Your task to perform on an android device: delete a single message in the gmail app Image 0: 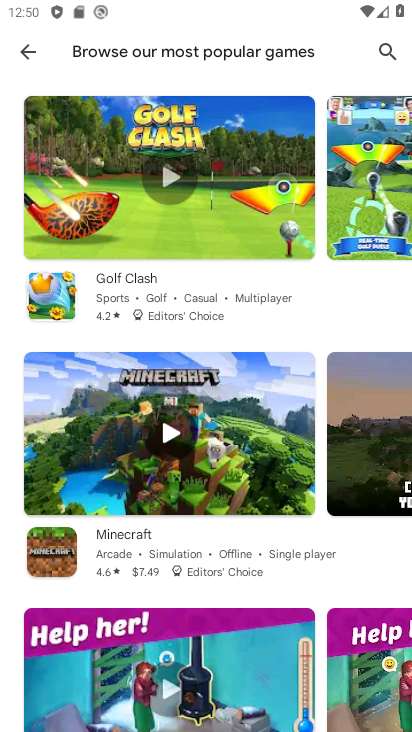
Step 0: press home button
Your task to perform on an android device: delete a single message in the gmail app Image 1: 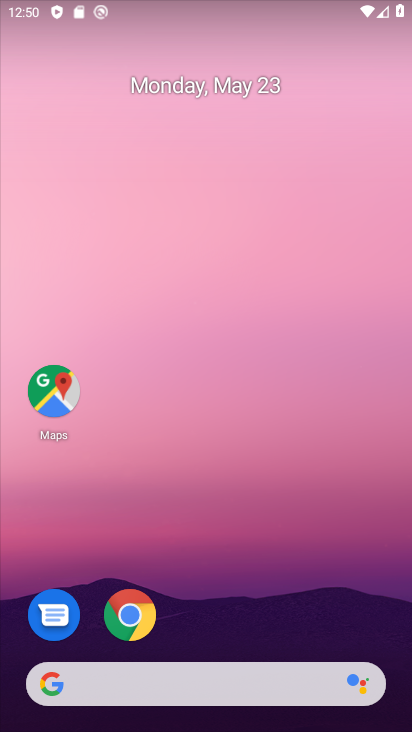
Step 1: drag from (214, 645) to (177, 162)
Your task to perform on an android device: delete a single message in the gmail app Image 2: 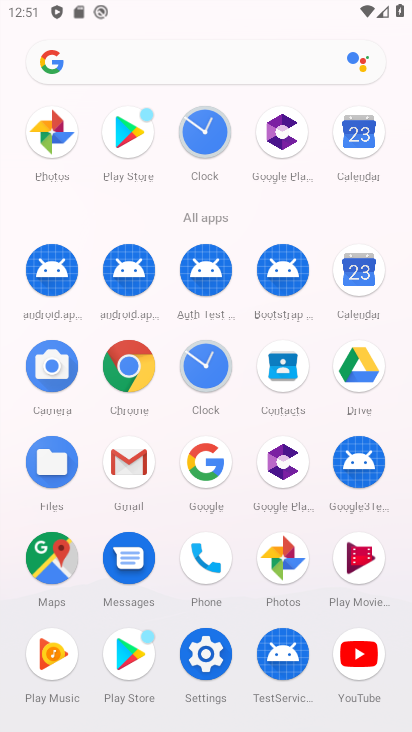
Step 2: click (129, 446)
Your task to perform on an android device: delete a single message in the gmail app Image 3: 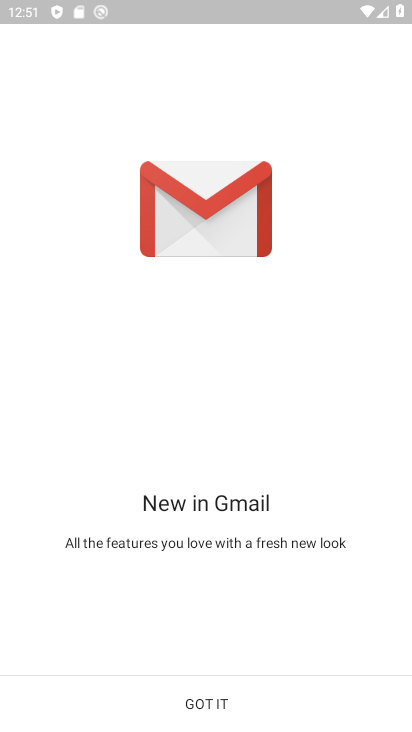
Step 3: click (214, 722)
Your task to perform on an android device: delete a single message in the gmail app Image 4: 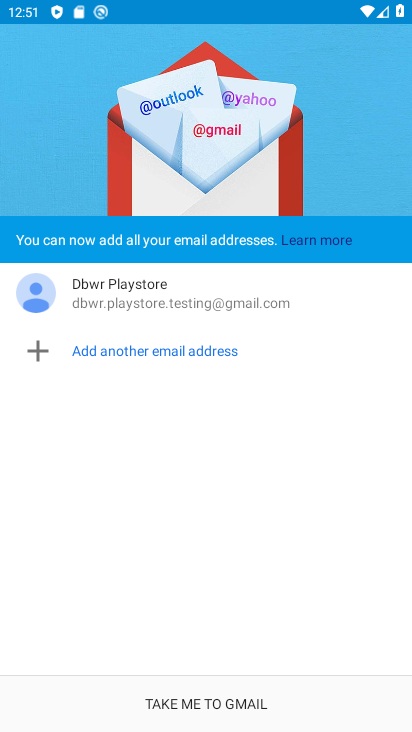
Step 4: click (214, 722)
Your task to perform on an android device: delete a single message in the gmail app Image 5: 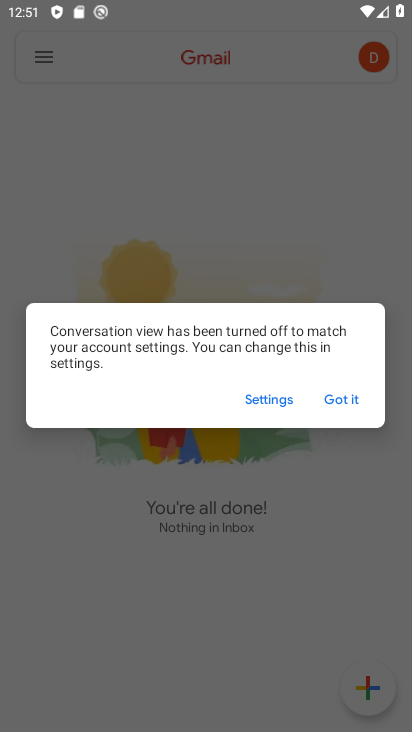
Step 5: click (343, 409)
Your task to perform on an android device: delete a single message in the gmail app Image 6: 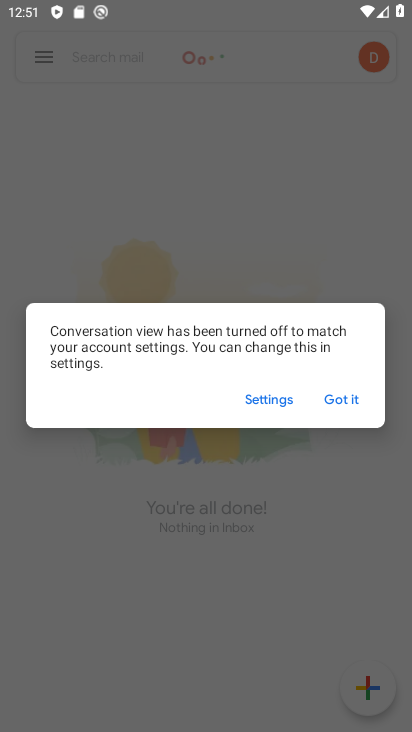
Step 6: click (343, 409)
Your task to perform on an android device: delete a single message in the gmail app Image 7: 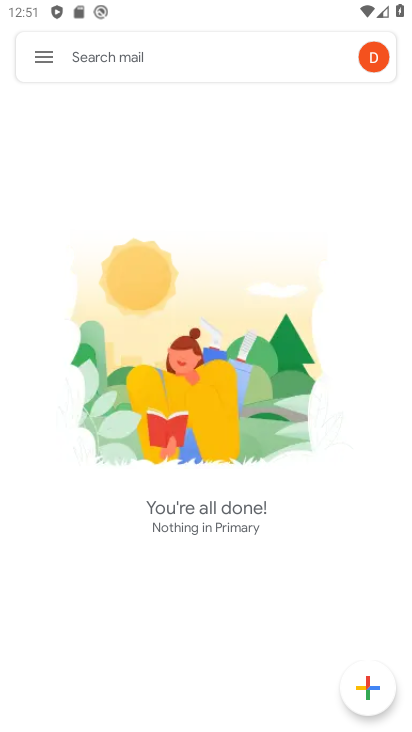
Step 7: task complete